Your task to perform on an android device: open sync settings in chrome Image 0: 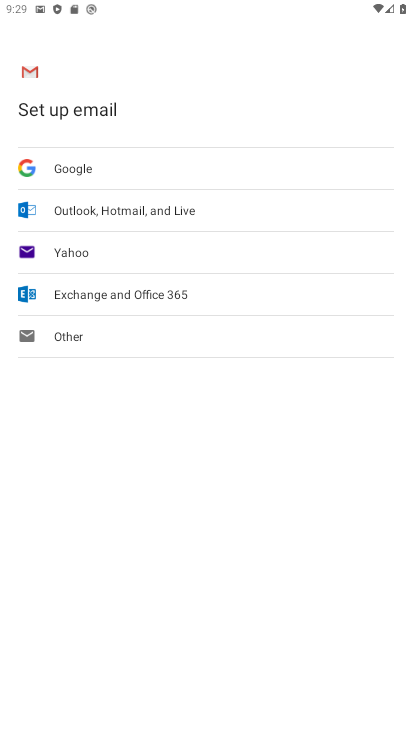
Step 0: press home button
Your task to perform on an android device: open sync settings in chrome Image 1: 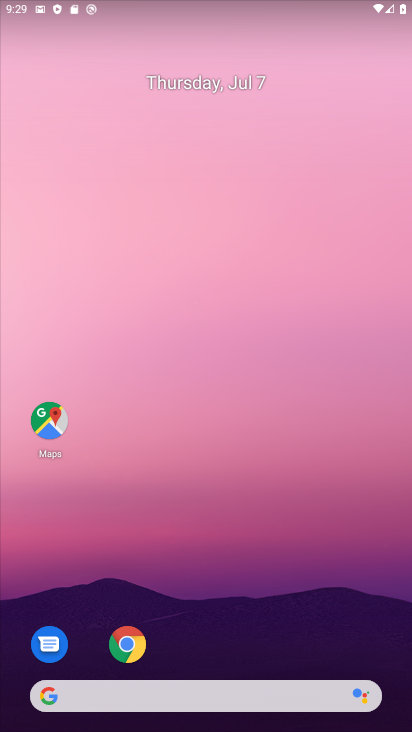
Step 1: click (129, 645)
Your task to perform on an android device: open sync settings in chrome Image 2: 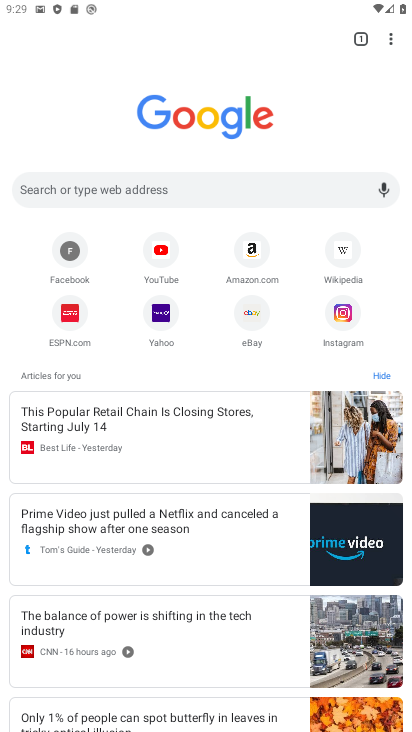
Step 2: click (396, 37)
Your task to perform on an android device: open sync settings in chrome Image 3: 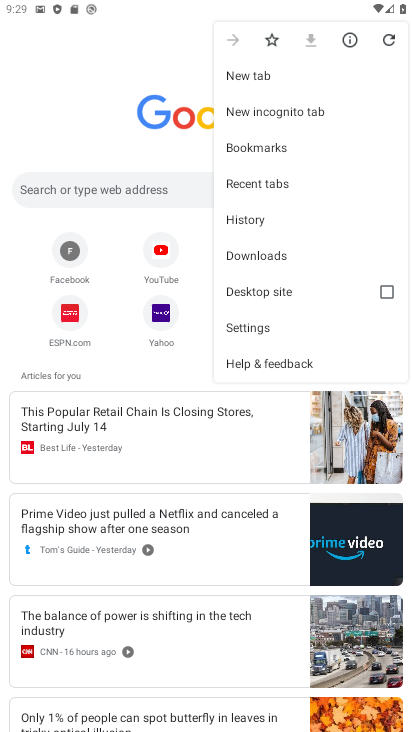
Step 3: click (269, 322)
Your task to perform on an android device: open sync settings in chrome Image 4: 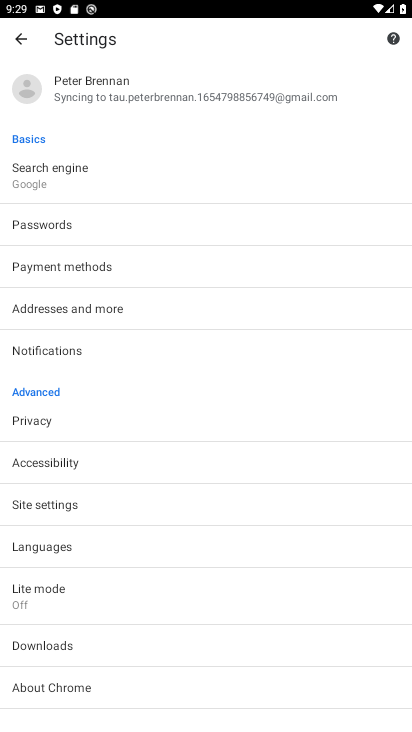
Step 4: click (184, 104)
Your task to perform on an android device: open sync settings in chrome Image 5: 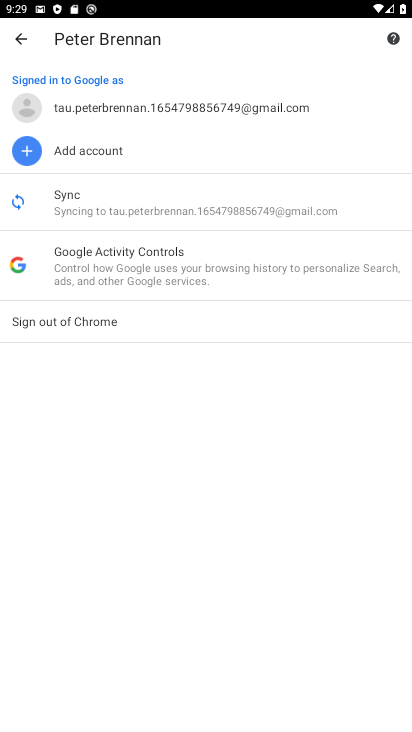
Step 5: click (159, 204)
Your task to perform on an android device: open sync settings in chrome Image 6: 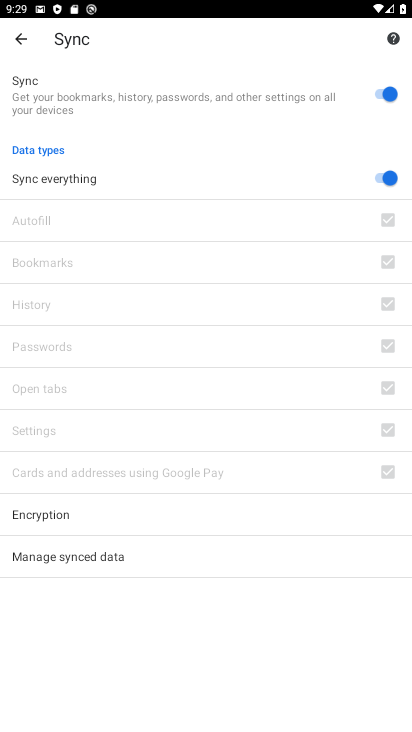
Step 6: task complete